Your task to perform on an android device: Empty the shopping cart on bestbuy.com. Add "jbl charge 4" to the cart on bestbuy.com, then select checkout. Image 0: 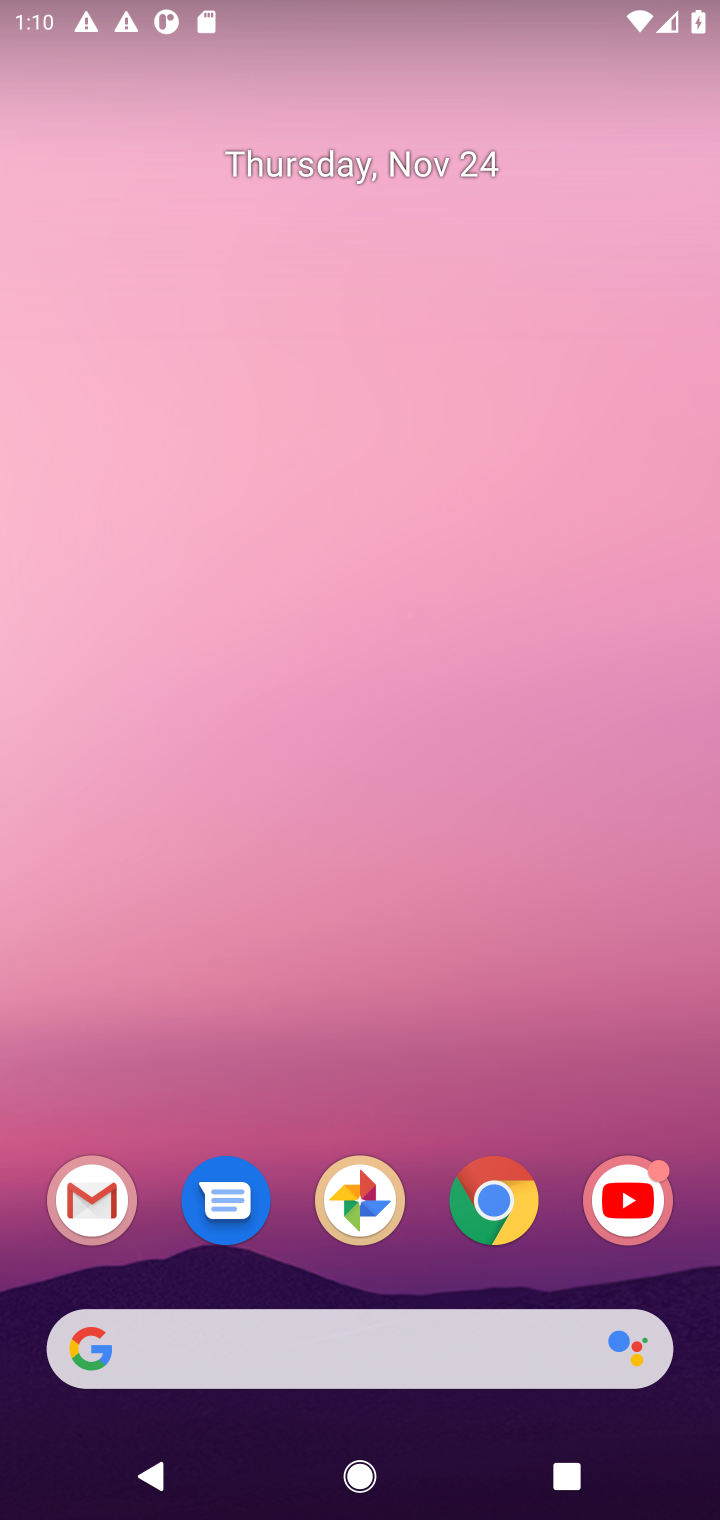
Step 0: click (211, 1365)
Your task to perform on an android device: Empty the shopping cart on bestbuy.com. Add "jbl charge 4" to the cart on bestbuy.com, then select checkout. Image 1: 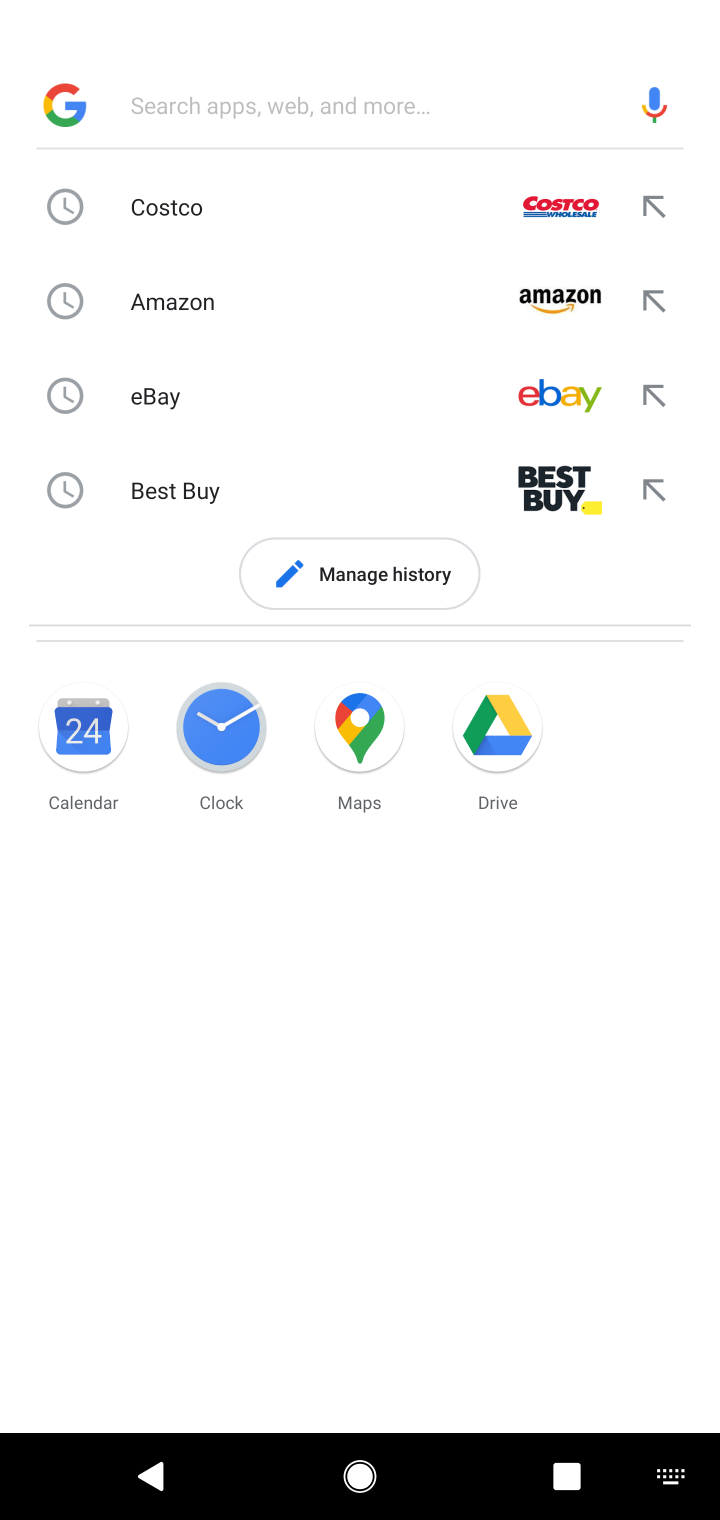
Step 1: type "bestbiuy"
Your task to perform on an android device: Empty the shopping cart on bestbuy.com. Add "jbl charge 4" to the cart on bestbuy.com, then select checkout. Image 2: 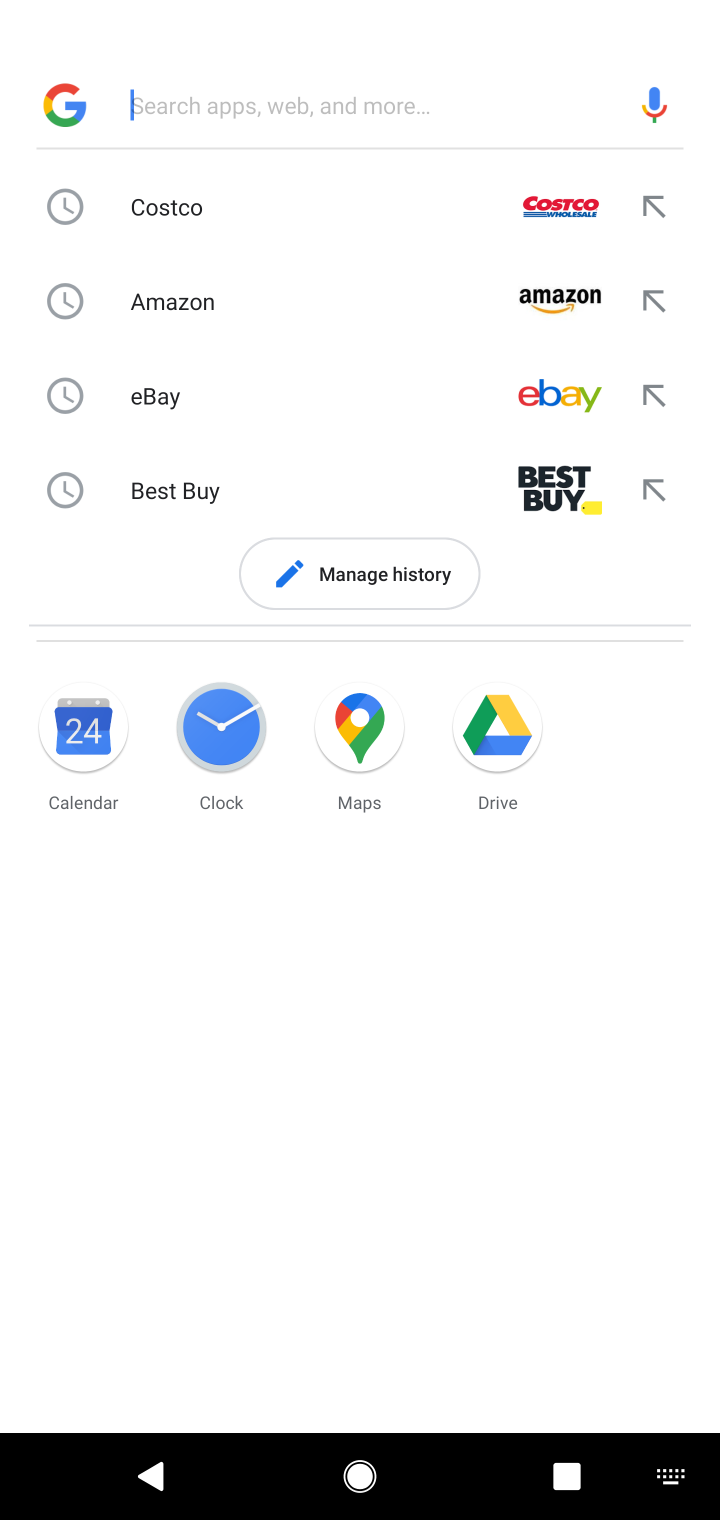
Step 2: click (234, 495)
Your task to perform on an android device: Empty the shopping cart on bestbuy.com. Add "jbl charge 4" to the cart on bestbuy.com, then select checkout. Image 3: 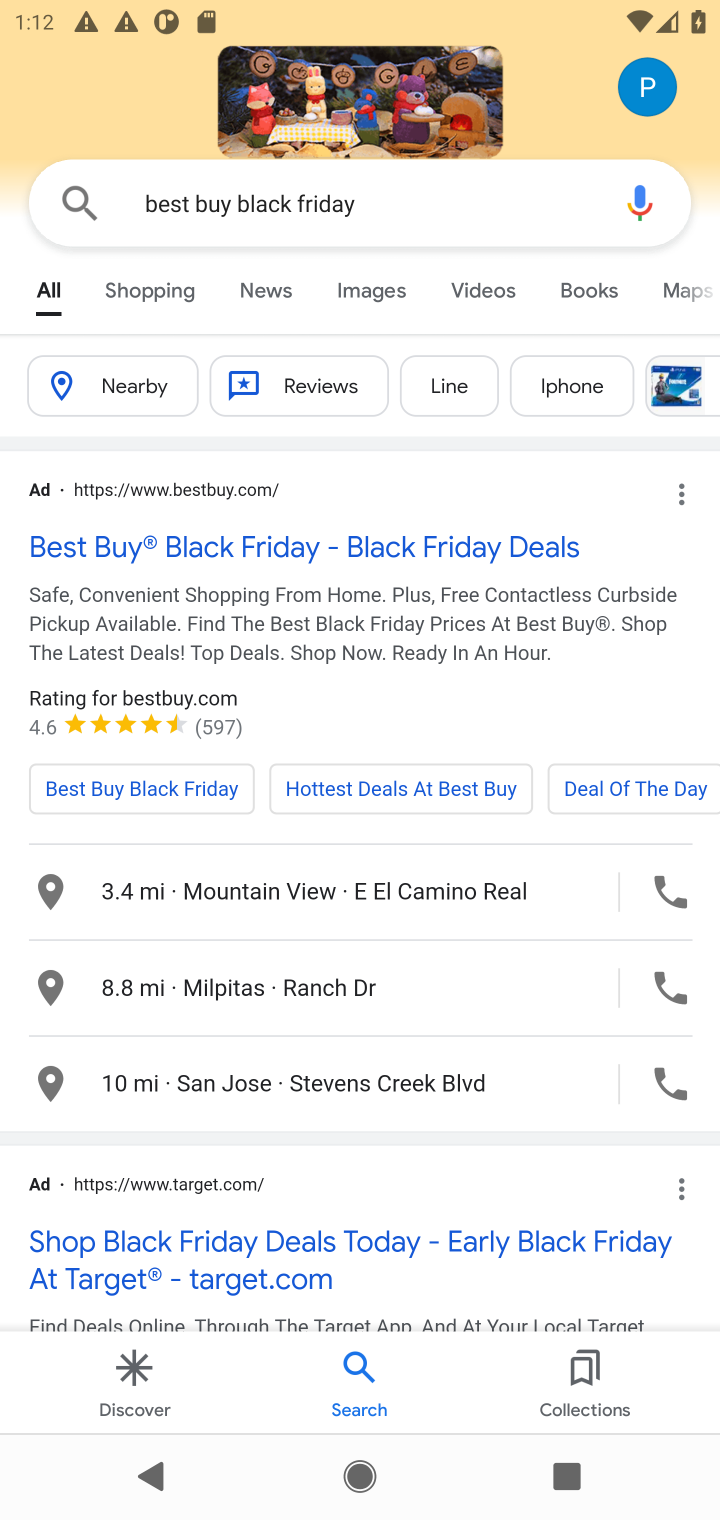
Step 3: click (135, 570)
Your task to perform on an android device: Empty the shopping cart on bestbuy.com. Add "jbl charge 4" to the cart on bestbuy.com, then select checkout. Image 4: 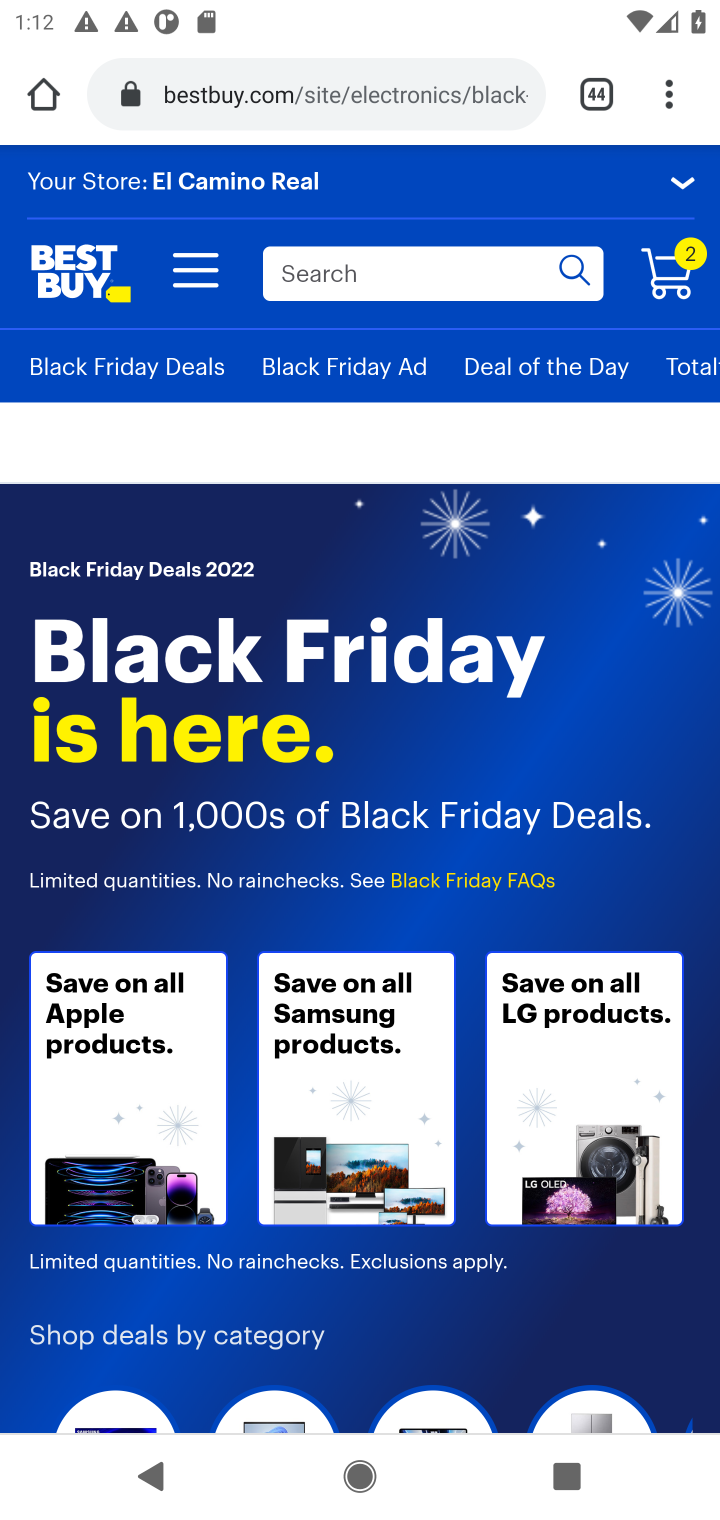
Step 4: task complete